Your task to perform on an android device: delete a single message in the gmail app Image 0: 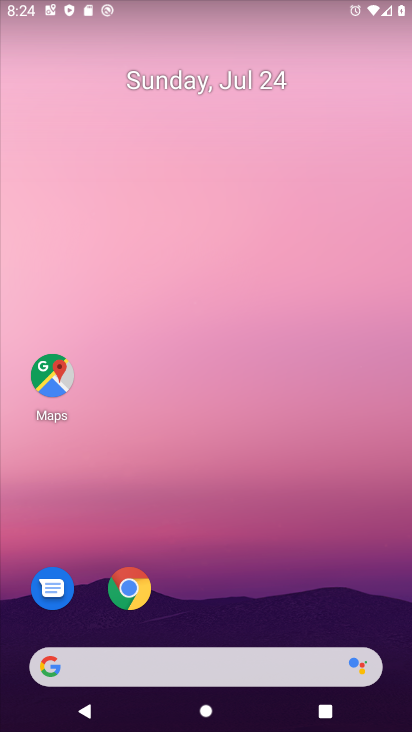
Step 0: drag from (240, 610) to (226, 87)
Your task to perform on an android device: delete a single message in the gmail app Image 1: 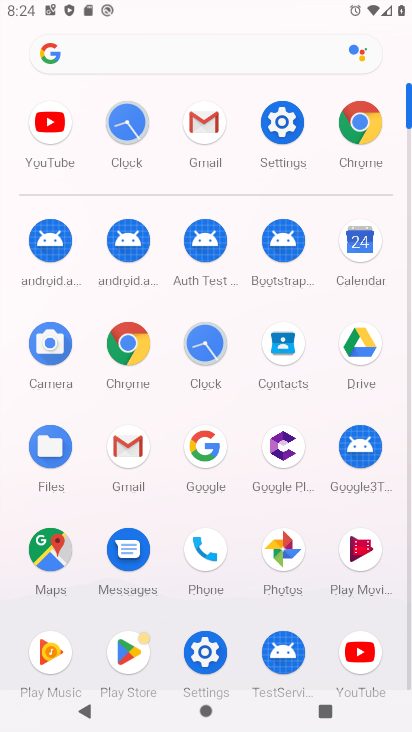
Step 1: click (203, 133)
Your task to perform on an android device: delete a single message in the gmail app Image 2: 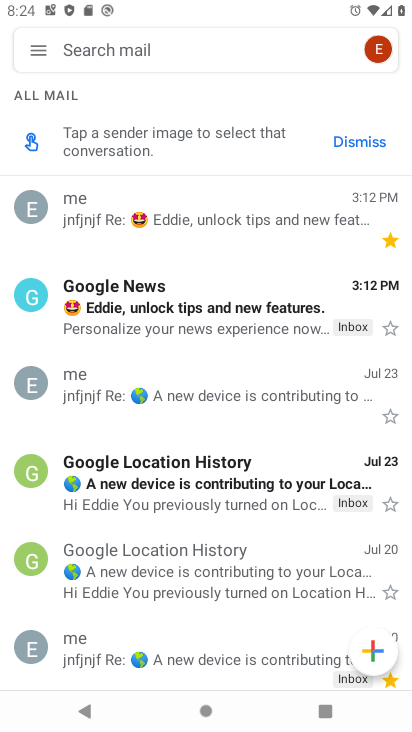
Step 2: click (226, 294)
Your task to perform on an android device: delete a single message in the gmail app Image 3: 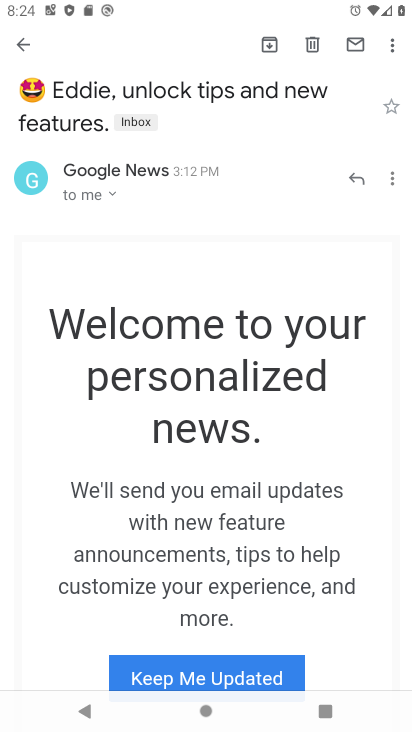
Step 3: click (301, 43)
Your task to perform on an android device: delete a single message in the gmail app Image 4: 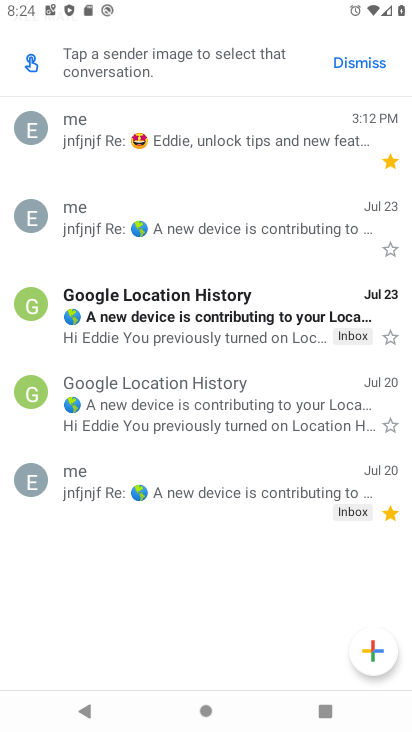
Step 4: task complete